Your task to perform on an android device: Open notification settings Image 0: 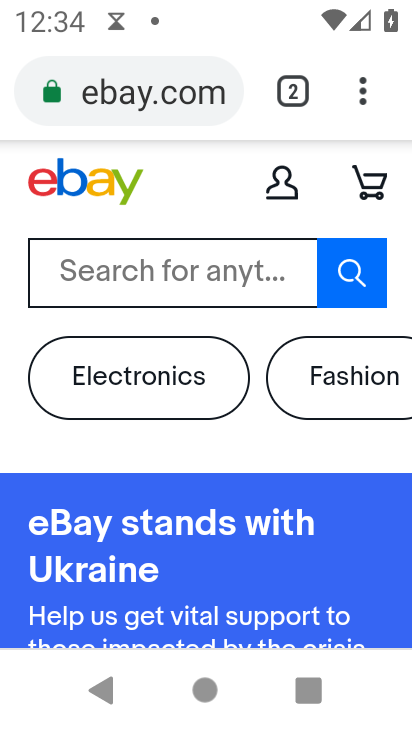
Step 0: press home button
Your task to perform on an android device: Open notification settings Image 1: 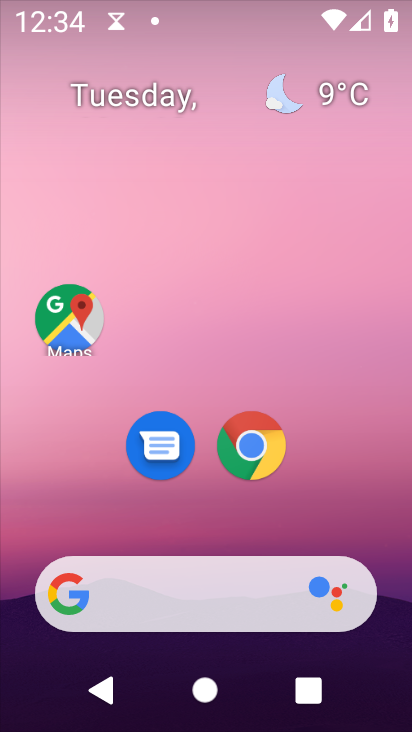
Step 1: drag from (332, 637) to (302, 64)
Your task to perform on an android device: Open notification settings Image 2: 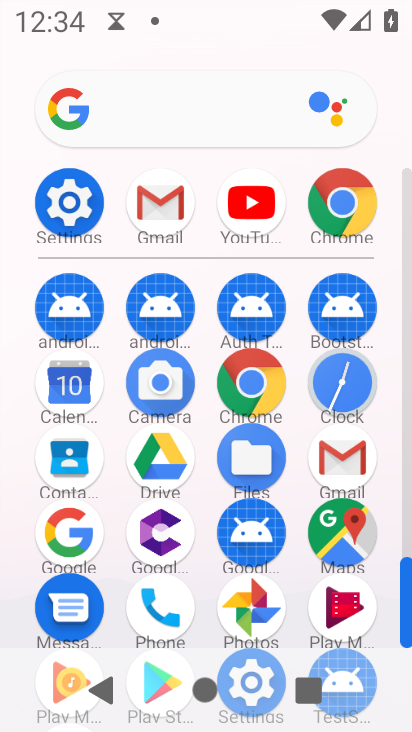
Step 2: click (65, 189)
Your task to perform on an android device: Open notification settings Image 3: 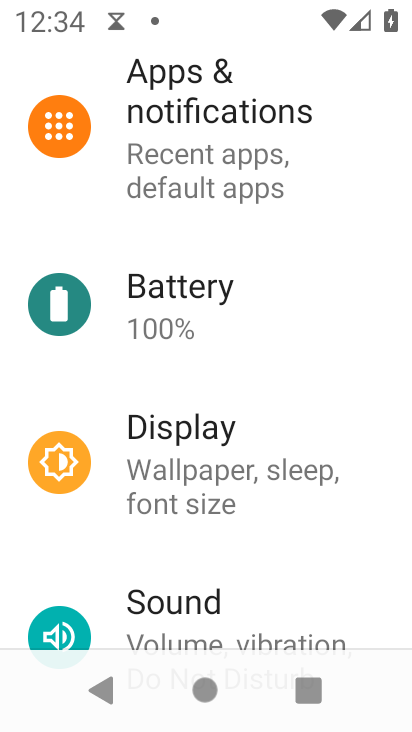
Step 3: click (281, 168)
Your task to perform on an android device: Open notification settings Image 4: 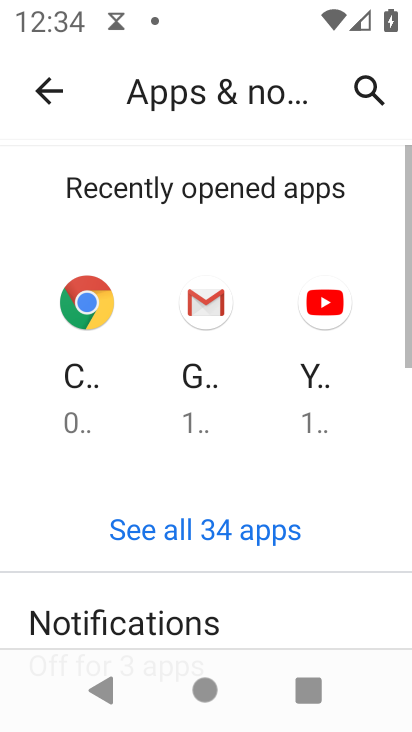
Step 4: drag from (295, 602) to (276, 89)
Your task to perform on an android device: Open notification settings Image 5: 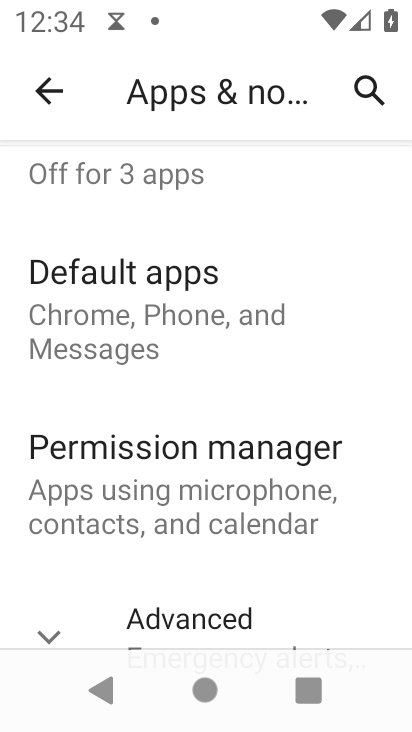
Step 5: click (211, 173)
Your task to perform on an android device: Open notification settings Image 6: 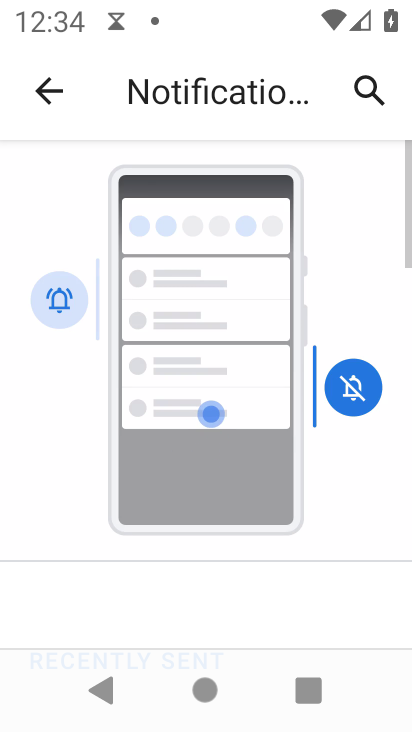
Step 6: task complete